Your task to perform on an android device: open chrome privacy settings Image 0: 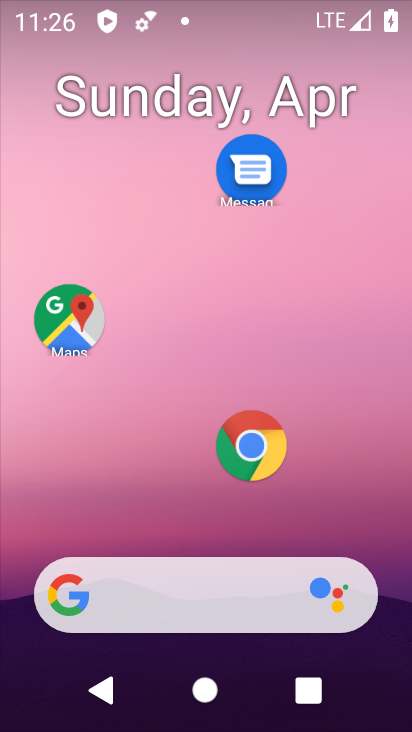
Step 0: drag from (172, 551) to (263, 56)
Your task to perform on an android device: open chrome privacy settings Image 1: 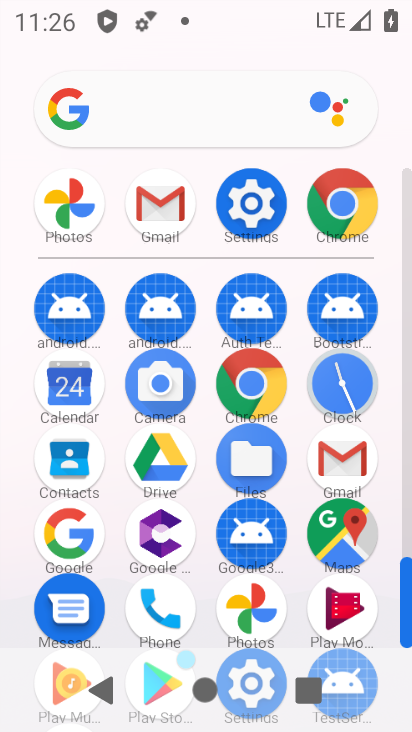
Step 1: click (357, 210)
Your task to perform on an android device: open chrome privacy settings Image 2: 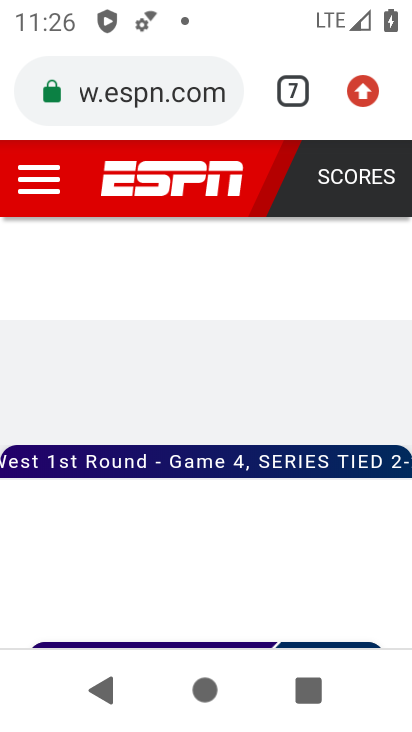
Step 2: click (361, 113)
Your task to perform on an android device: open chrome privacy settings Image 3: 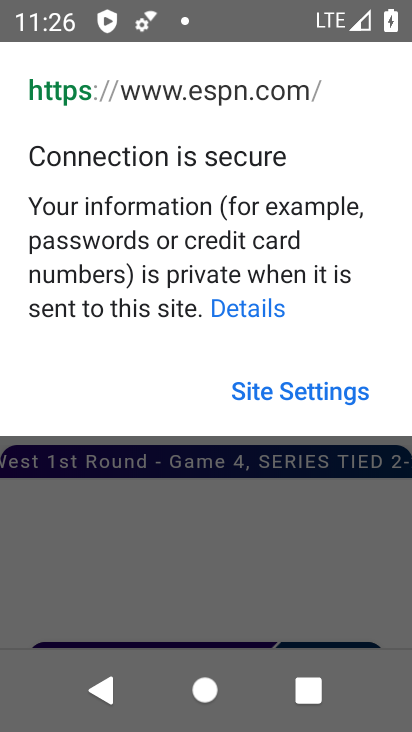
Step 3: press back button
Your task to perform on an android device: open chrome privacy settings Image 4: 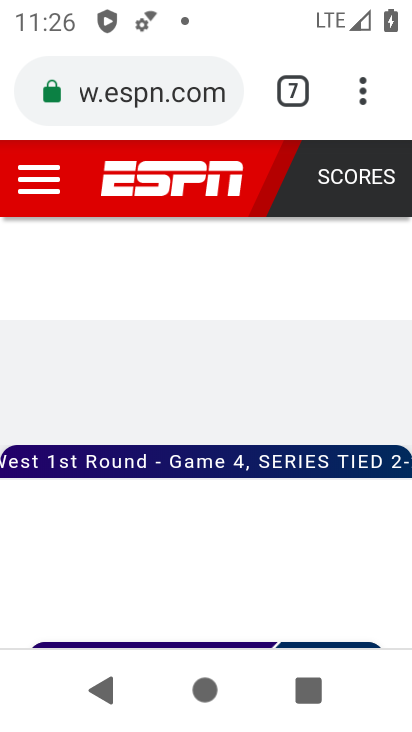
Step 4: drag from (361, 92) to (192, 464)
Your task to perform on an android device: open chrome privacy settings Image 5: 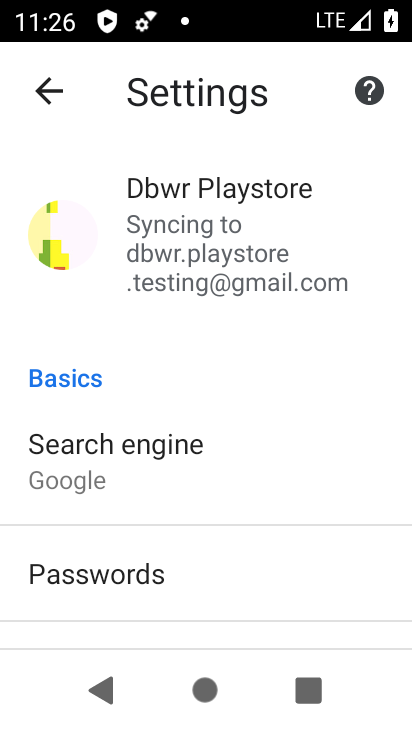
Step 5: drag from (101, 615) to (224, 277)
Your task to perform on an android device: open chrome privacy settings Image 6: 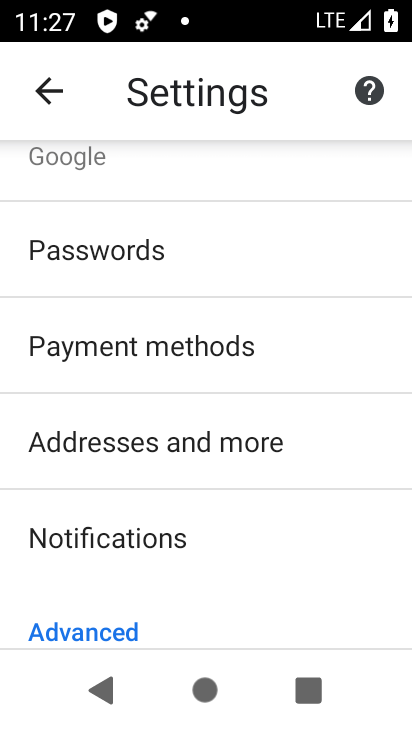
Step 6: drag from (180, 574) to (349, 272)
Your task to perform on an android device: open chrome privacy settings Image 7: 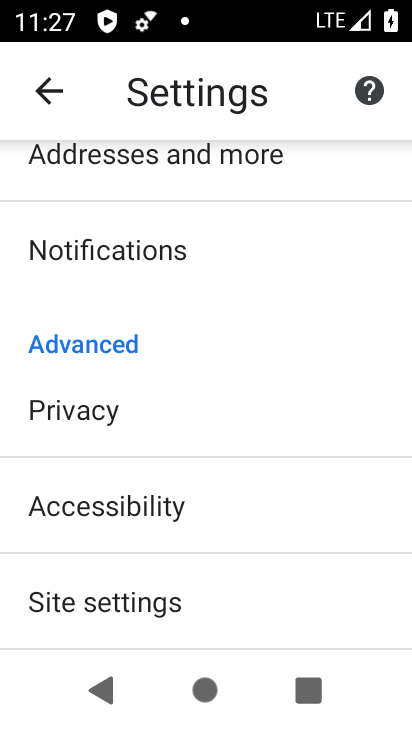
Step 7: click (92, 409)
Your task to perform on an android device: open chrome privacy settings Image 8: 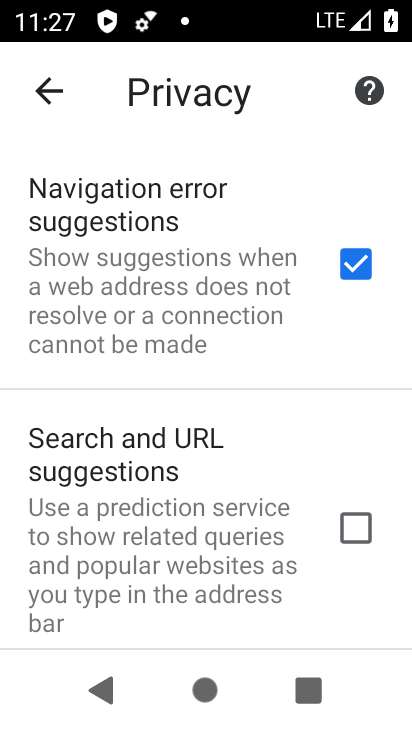
Step 8: task complete